Your task to perform on an android device: turn off smart reply in the gmail app Image 0: 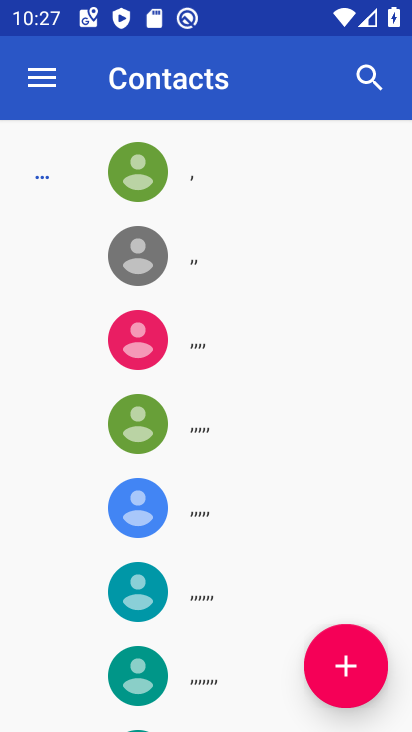
Step 0: press home button
Your task to perform on an android device: turn off smart reply in the gmail app Image 1: 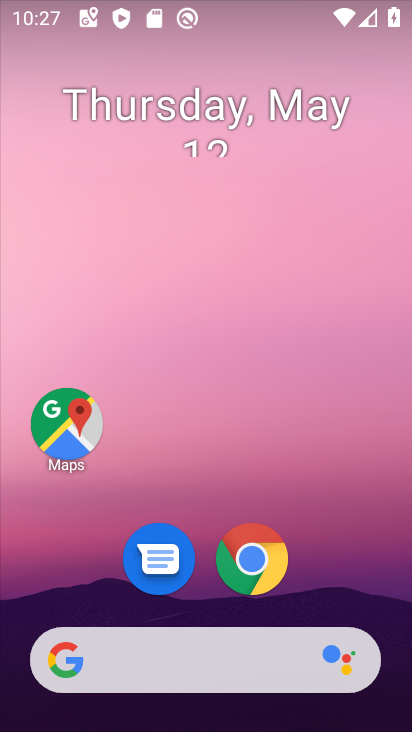
Step 1: drag from (217, 600) to (243, 208)
Your task to perform on an android device: turn off smart reply in the gmail app Image 2: 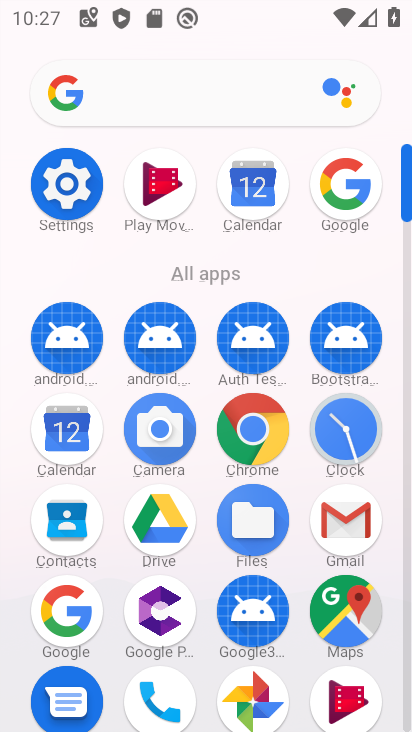
Step 2: click (356, 518)
Your task to perform on an android device: turn off smart reply in the gmail app Image 3: 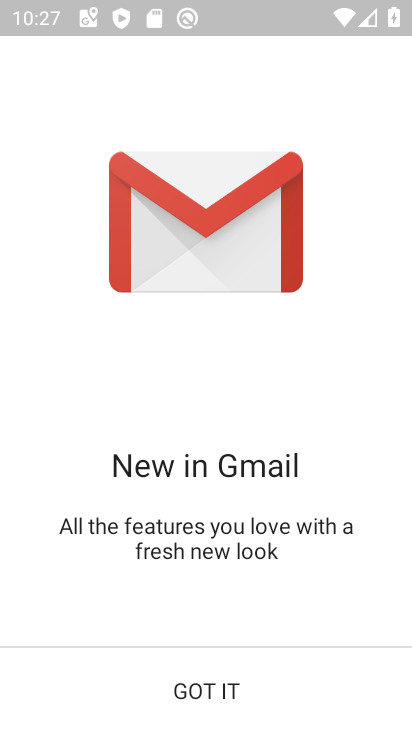
Step 3: click (227, 704)
Your task to perform on an android device: turn off smart reply in the gmail app Image 4: 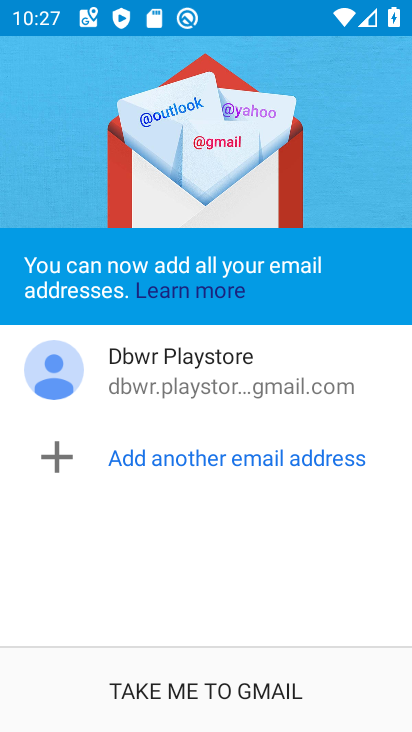
Step 4: click (229, 703)
Your task to perform on an android device: turn off smart reply in the gmail app Image 5: 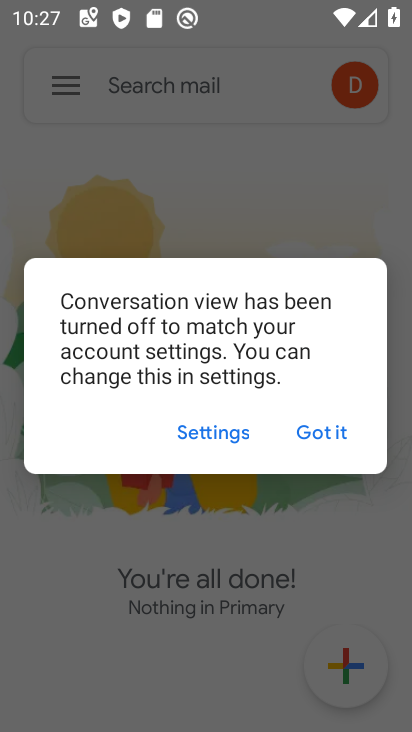
Step 5: click (313, 440)
Your task to perform on an android device: turn off smart reply in the gmail app Image 6: 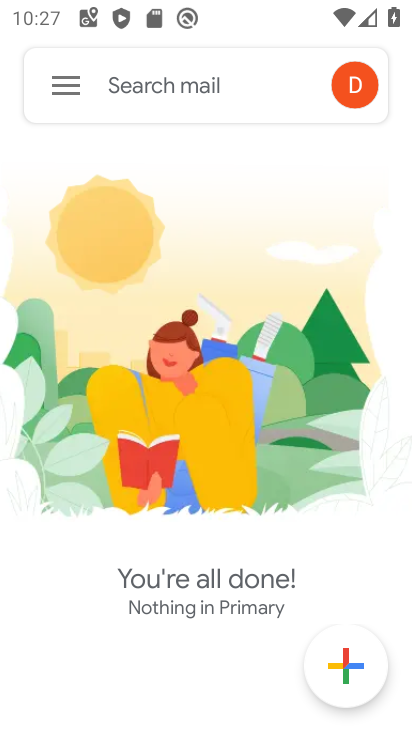
Step 6: click (57, 90)
Your task to perform on an android device: turn off smart reply in the gmail app Image 7: 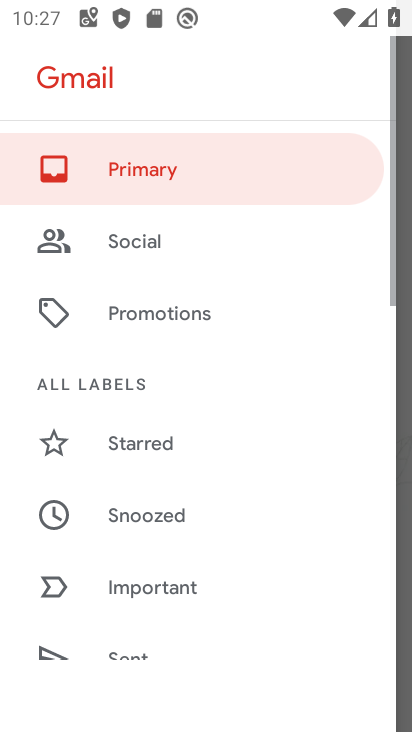
Step 7: drag from (192, 582) to (218, 275)
Your task to perform on an android device: turn off smart reply in the gmail app Image 8: 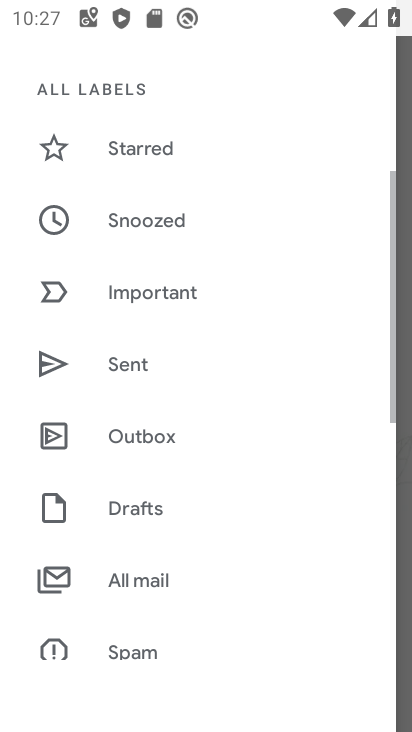
Step 8: drag from (243, 531) to (250, 222)
Your task to perform on an android device: turn off smart reply in the gmail app Image 9: 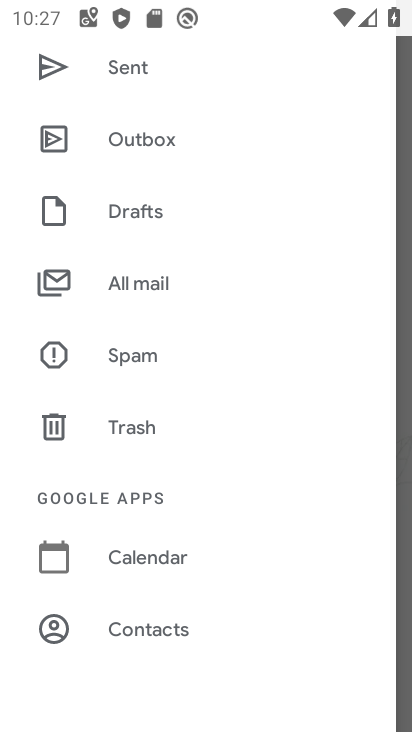
Step 9: drag from (207, 598) to (222, 258)
Your task to perform on an android device: turn off smart reply in the gmail app Image 10: 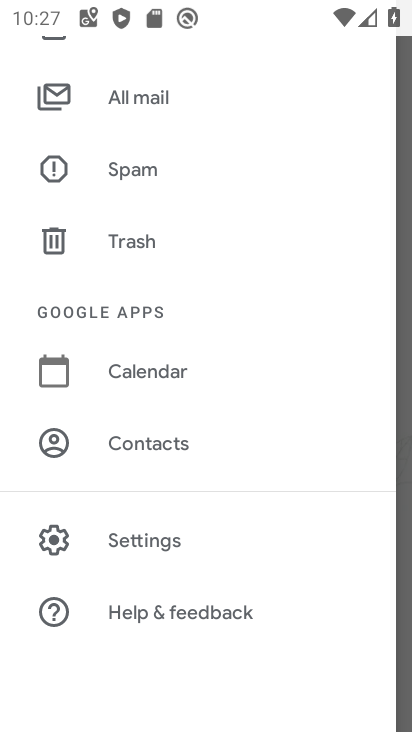
Step 10: click (143, 528)
Your task to perform on an android device: turn off smart reply in the gmail app Image 11: 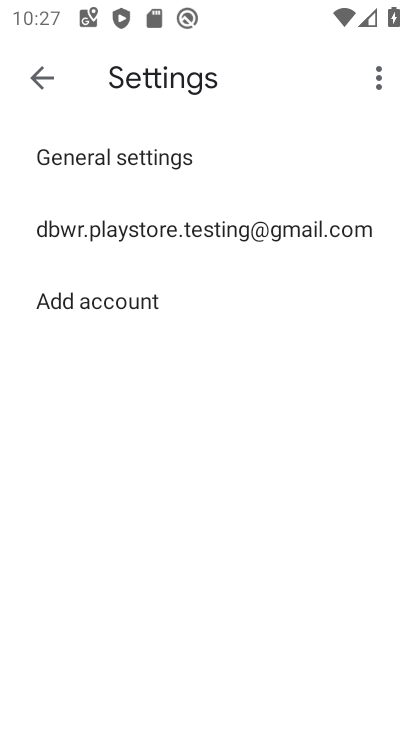
Step 11: click (150, 224)
Your task to perform on an android device: turn off smart reply in the gmail app Image 12: 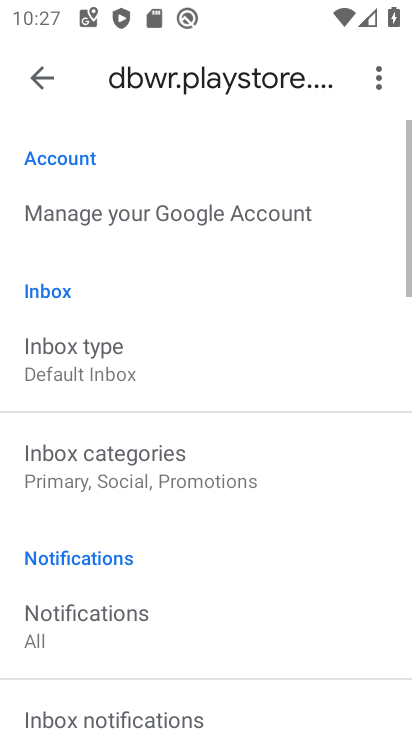
Step 12: drag from (159, 637) to (191, 302)
Your task to perform on an android device: turn off smart reply in the gmail app Image 13: 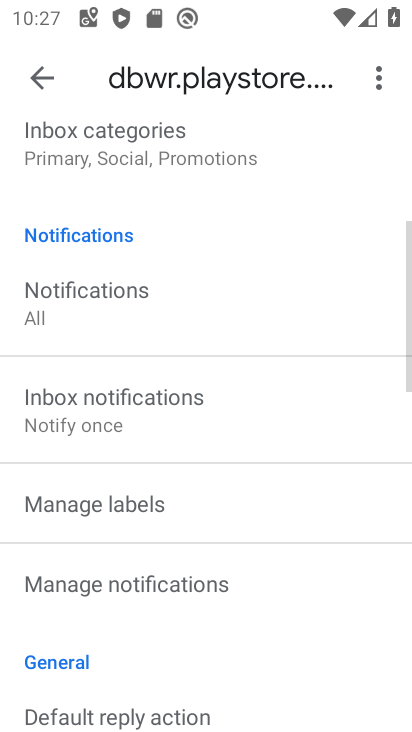
Step 13: drag from (180, 693) to (204, 377)
Your task to perform on an android device: turn off smart reply in the gmail app Image 14: 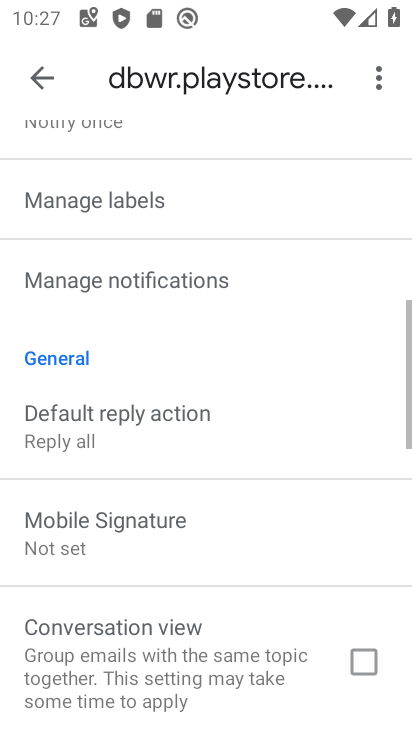
Step 14: drag from (171, 666) to (189, 352)
Your task to perform on an android device: turn off smart reply in the gmail app Image 15: 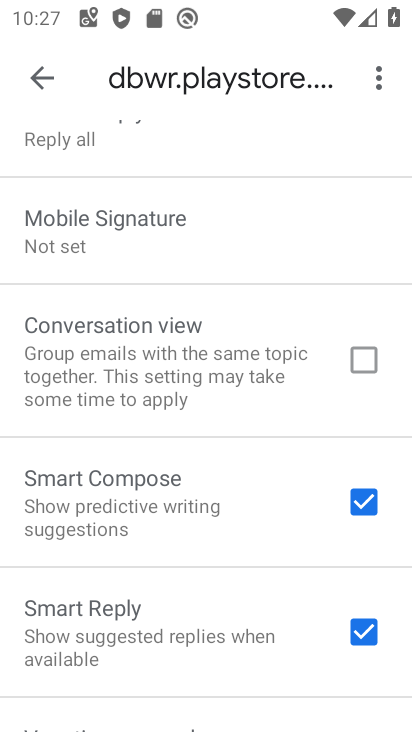
Step 15: click (368, 626)
Your task to perform on an android device: turn off smart reply in the gmail app Image 16: 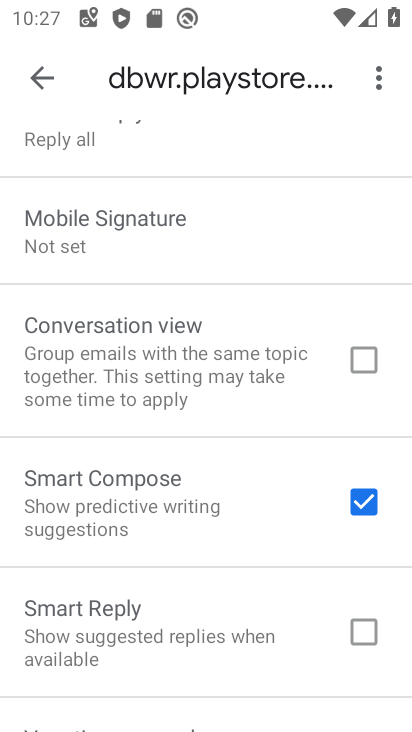
Step 16: task complete